Your task to perform on an android device: Open Wikipedia Image 0: 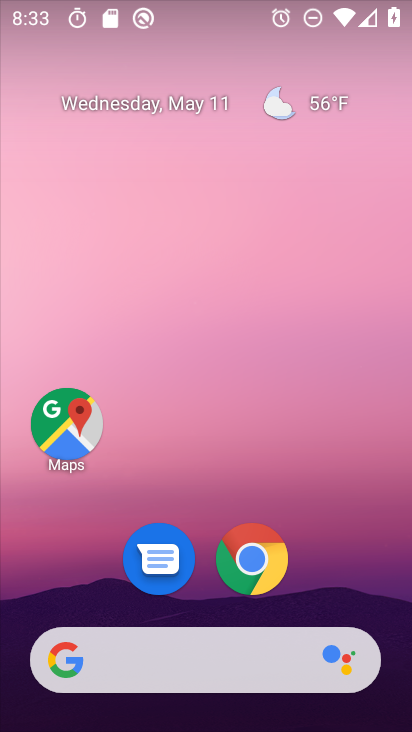
Step 0: click (186, 662)
Your task to perform on an android device: Open Wikipedia Image 1: 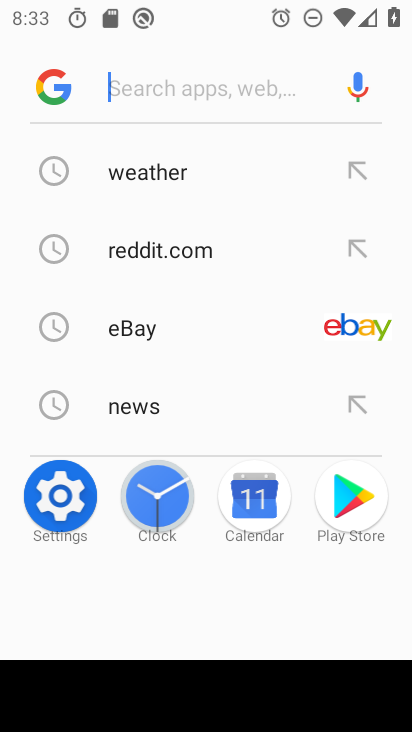
Step 1: click (157, 97)
Your task to perform on an android device: Open Wikipedia Image 2: 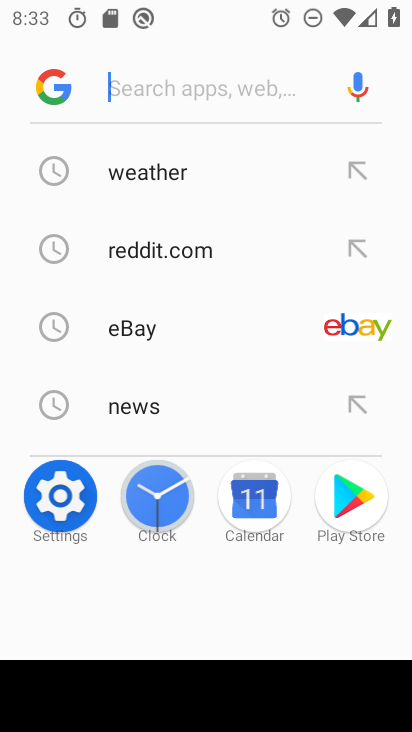
Step 2: type "wikipedia"
Your task to perform on an android device: Open Wikipedia Image 3: 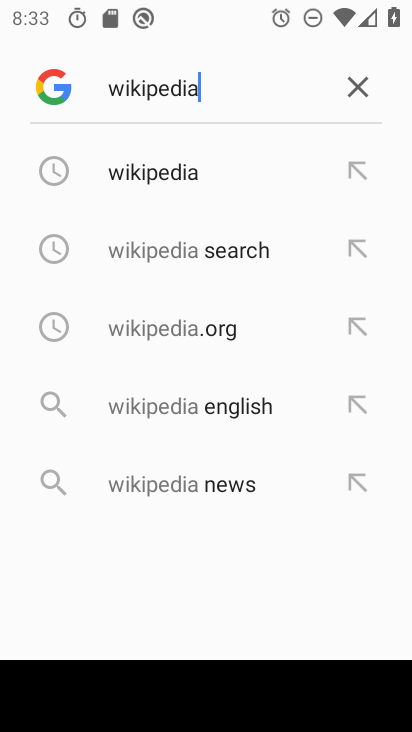
Step 3: click (143, 175)
Your task to perform on an android device: Open Wikipedia Image 4: 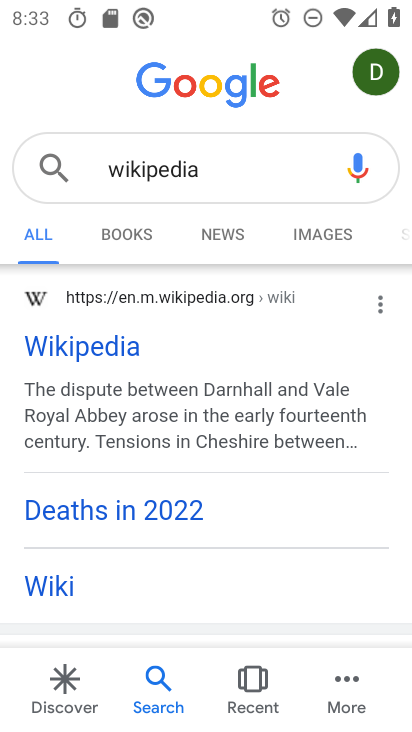
Step 4: task complete